Your task to perform on an android device: open a bookmark in the chrome app Image 0: 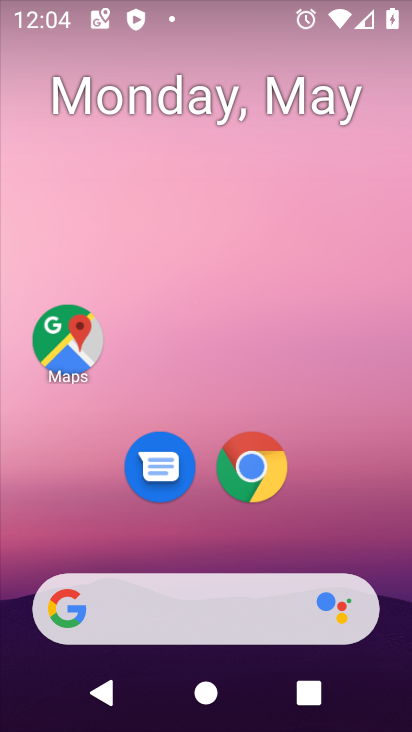
Step 0: click (259, 477)
Your task to perform on an android device: open a bookmark in the chrome app Image 1: 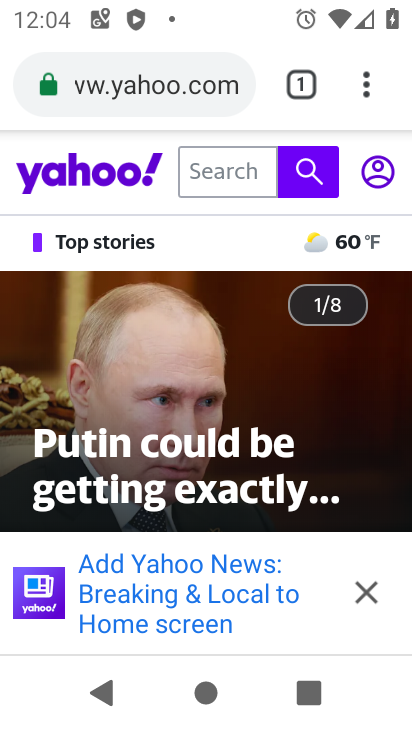
Step 1: click (366, 90)
Your task to perform on an android device: open a bookmark in the chrome app Image 2: 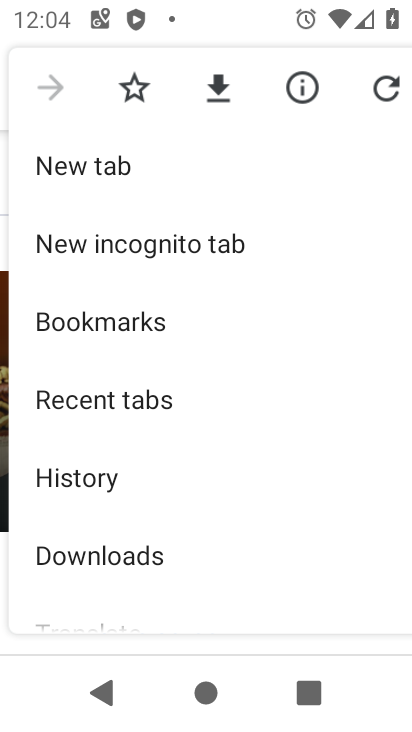
Step 2: click (87, 328)
Your task to perform on an android device: open a bookmark in the chrome app Image 3: 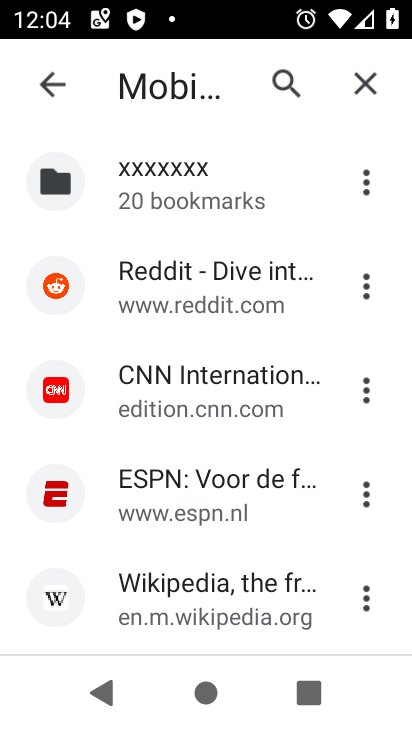
Step 3: click (180, 489)
Your task to perform on an android device: open a bookmark in the chrome app Image 4: 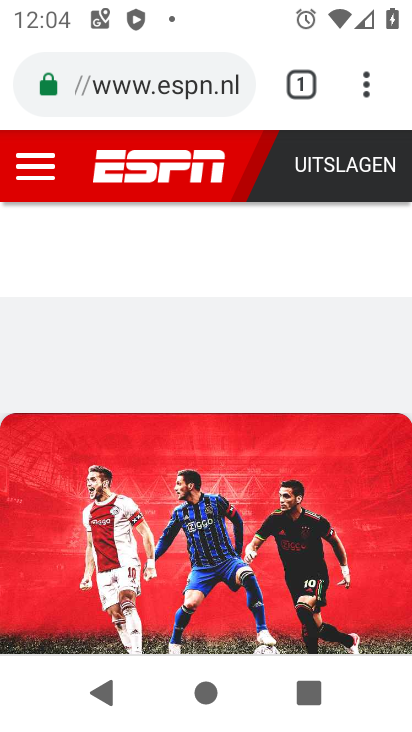
Step 4: task complete